Your task to perform on an android device: Search for a new phone on Amazon. Image 0: 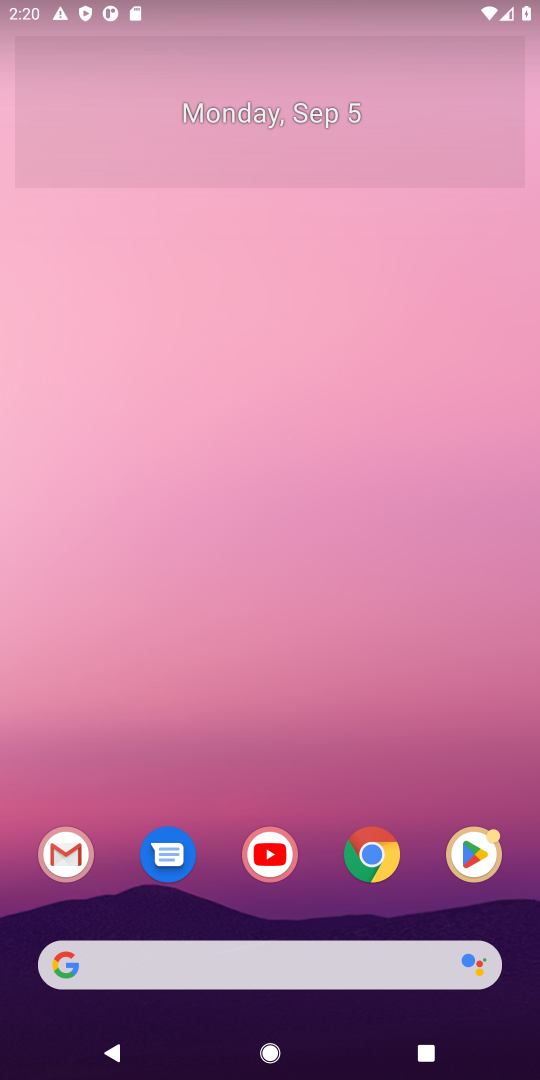
Step 0: click (365, 956)
Your task to perform on an android device: Search for a new phone on Amazon. Image 1: 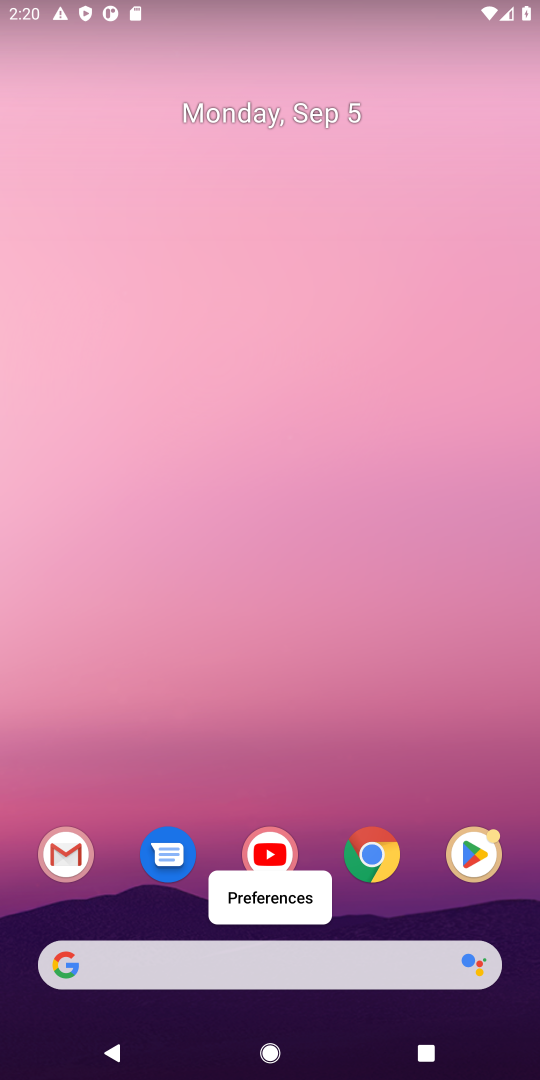
Step 1: click (246, 955)
Your task to perform on an android device: Search for a new phone on Amazon. Image 2: 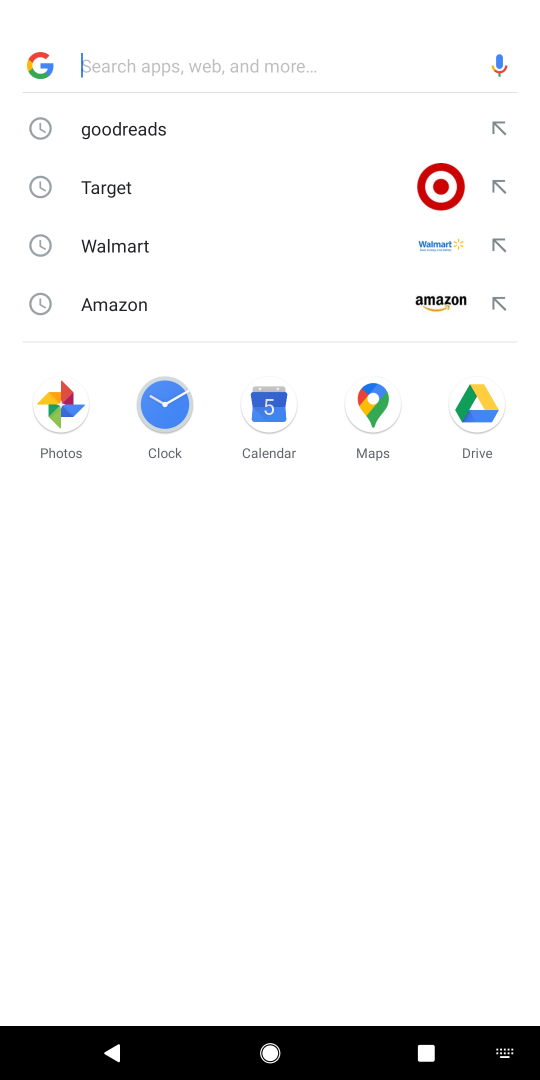
Step 2: type "amazon"
Your task to perform on an android device: Search for a new phone on Amazon. Image 3: 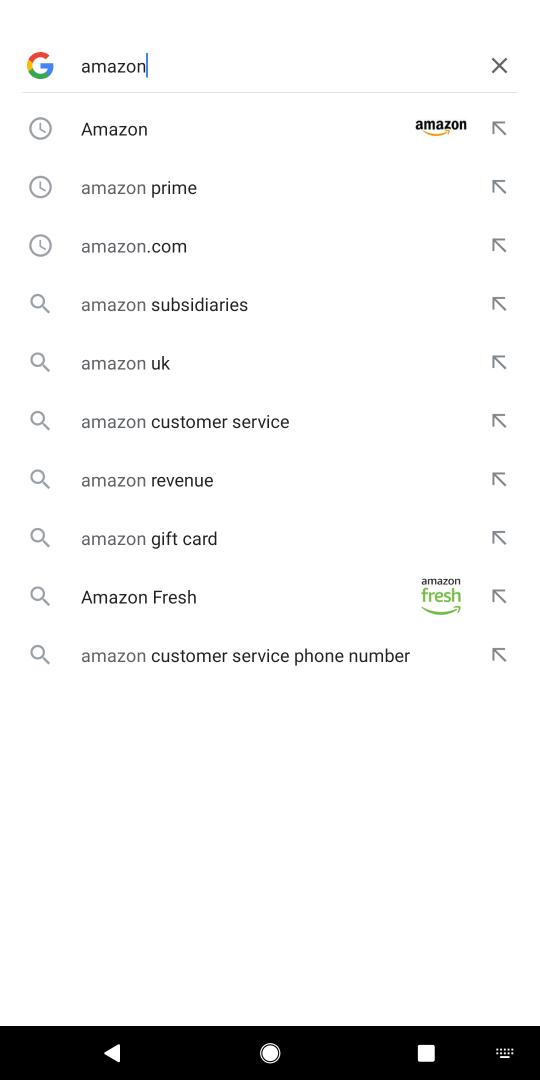
Step 3: press enter
Your task to perform on an android device: Search for a new phone on Amazon. Image 4: 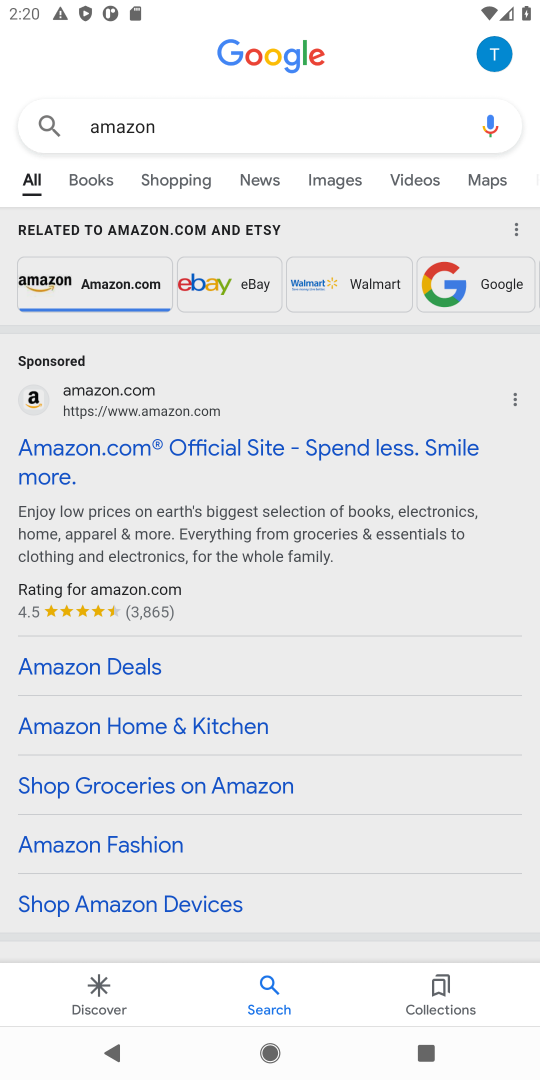
Step 4: click (130, 454)
Your task to perform on an android device: Search for a new phone on Amazon. Image 5: 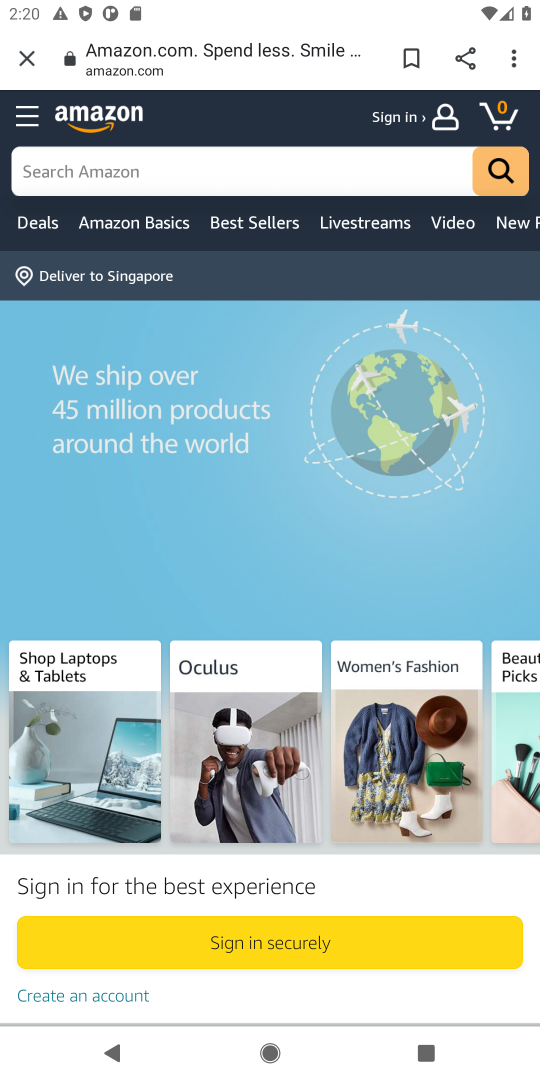
Step 5: click (119, 168)
Your task to perform on an android device: Search for a new phone on Amazon. Image 6: 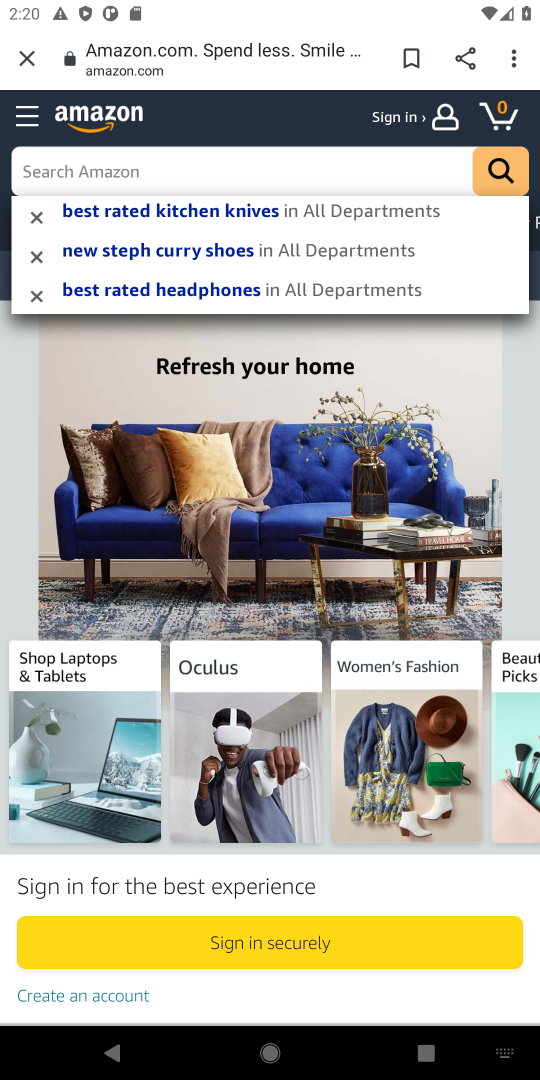
Step 6: type "new phone"
Your task to perform on an android device: Search for a new phone on Amazon. Image 7: 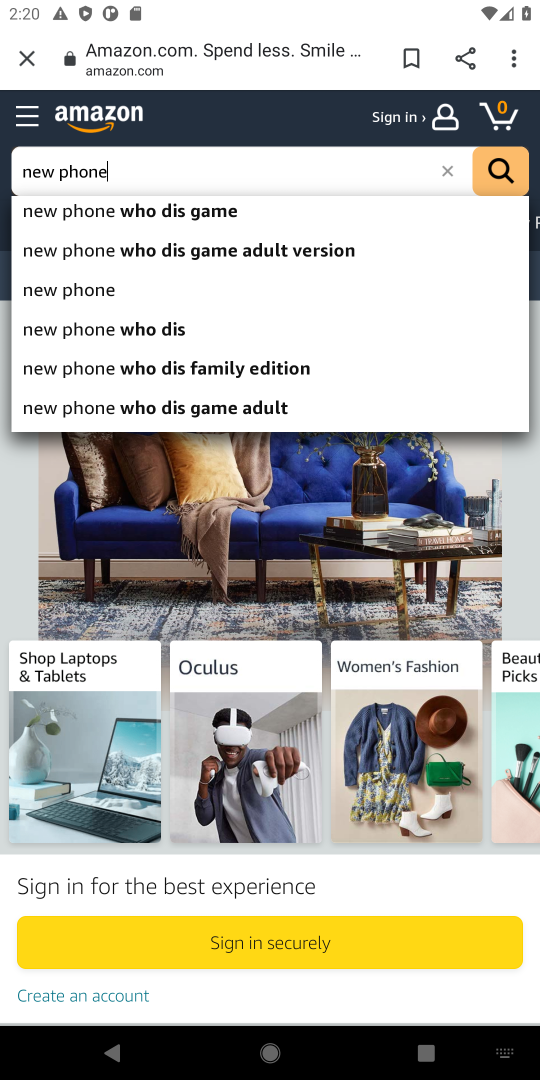
Step 7: click (492, 159)
Your task to perform on an android device: Search for a new phone on Amazon. Image 8: 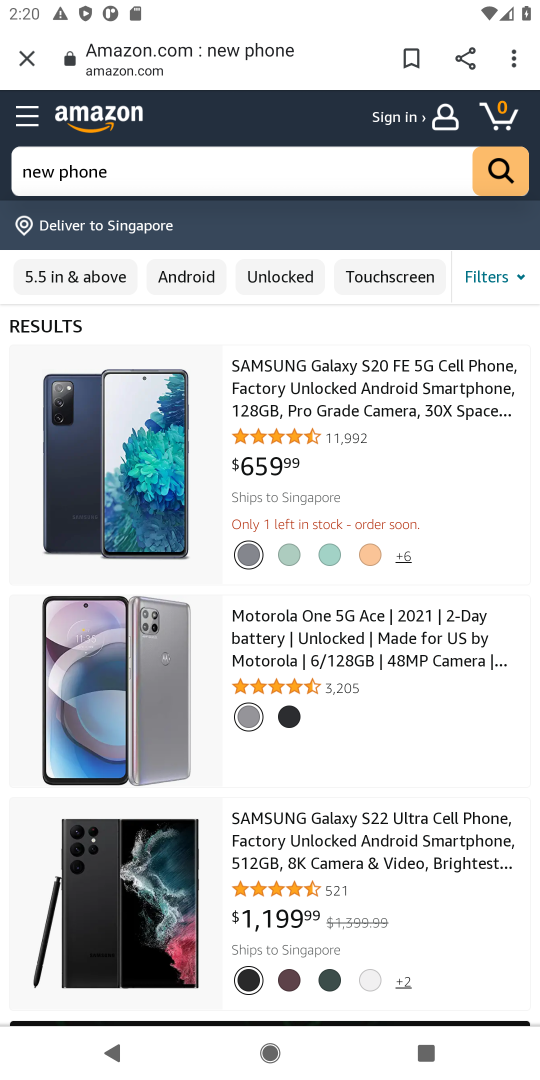
Step 8: task complete